Your task to perform on an android device: turn on translation in the chrome app Image 0: 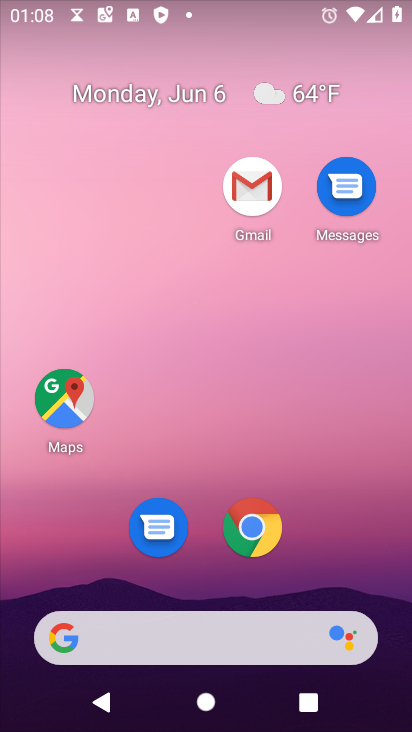
Step 0: click (303, 535)
Your task to perform on an android device: turn on translation in the chrome app Image 1: 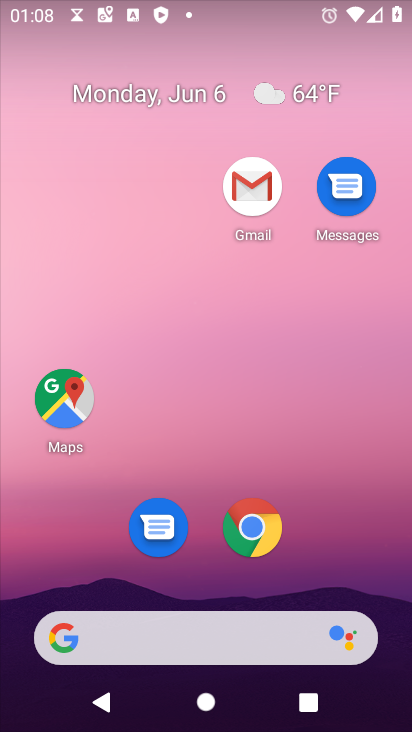
Step 1: click (259, 518)
Your task to perform on an android device: turn on translation in the chrome app Image 2: 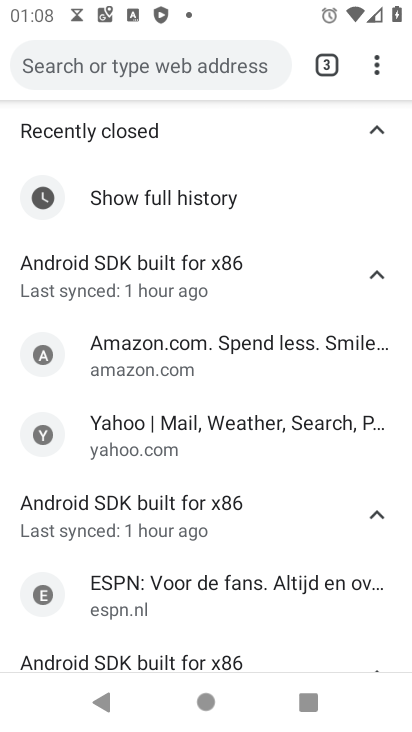
Step 2: click (376, 64)
Your task to perform on an android device: turn on translation in the chrome app Image 3: 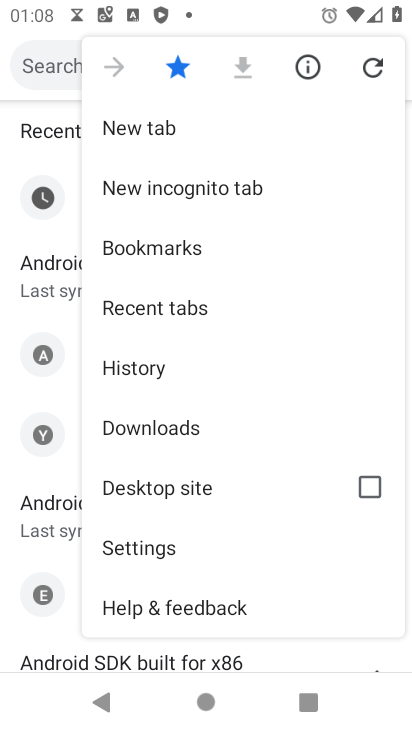
Step 3: drag from (223, 233) to (227, 597)
Your task to perform on an android device: turn on translation in the chrome app Image 4: 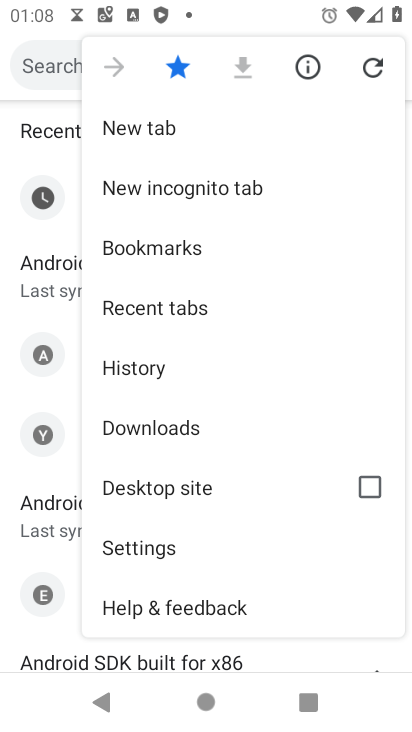
Step 4: drag from (232, 586) to (219, 187)
Your task to perform on an android device: turn on translation in the chrome app Image 5: 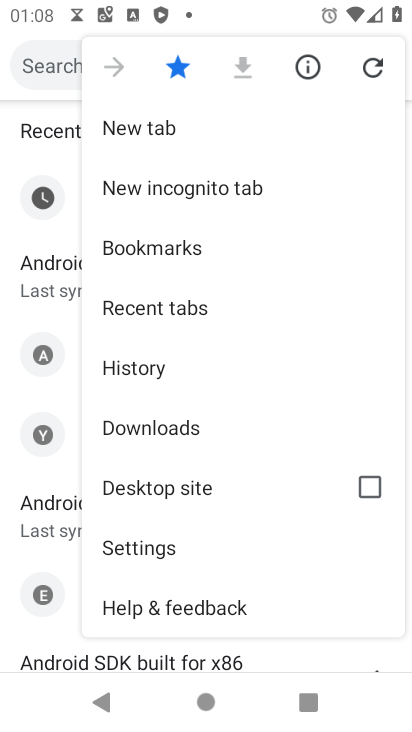
Step 5: drag from (202, 540) to (206, 176)
Your task to perform on an android device: turn on translation in the chrome app Image 6: 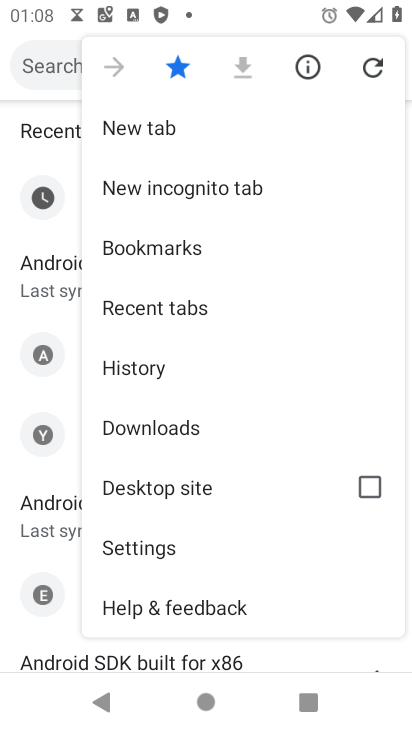
Step 6: drag from (235, 106) to (248, 606)
Your task to perform on an android device: turn on translation in the chrome app Image 7: 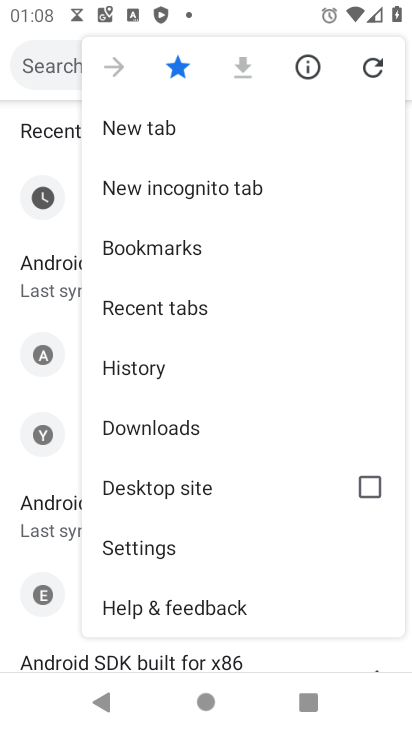
Step 7: drag from (229, 214) to (234, 578)
Your task to perform on an android device: turn on translation in the chrome app Image 8: 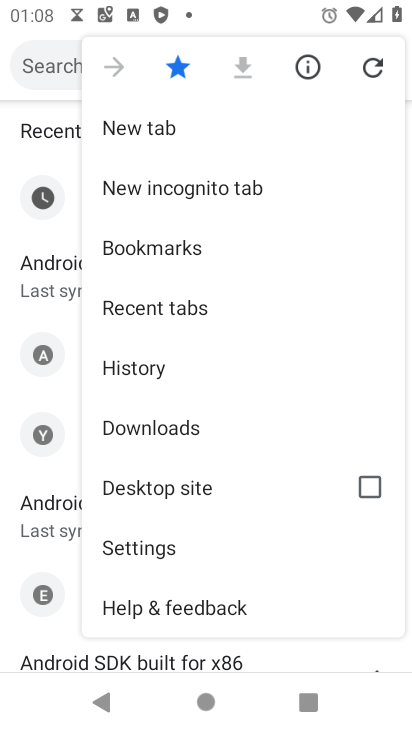
Step 8: drag from (158, 445) to (150, 102)
Your task to perform on an android device: turn on translation in the chrome app Image 9: 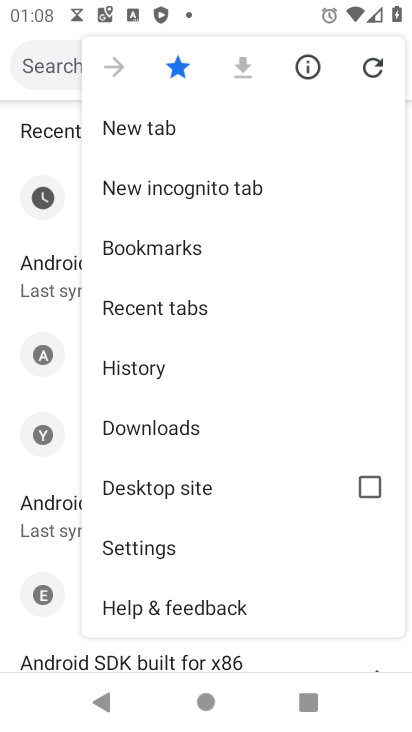
Step 9: click (141, 562)
Your task to perform on an android device: turn on translation in the chrome app Image 10: 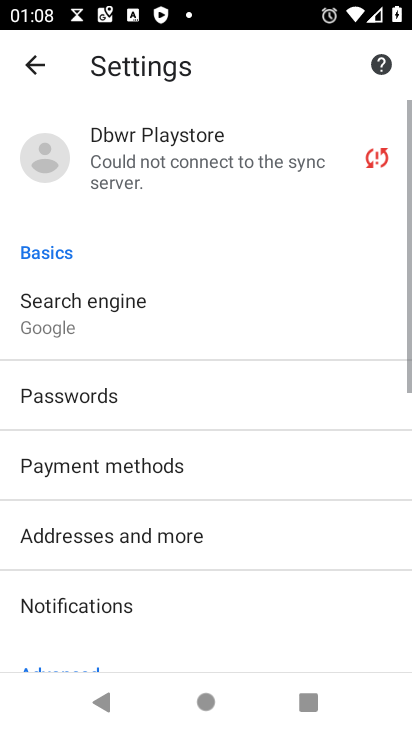
Step 10: drag from (136, 573) to (125, 158)
Your task to perform on an android device: turn on translation in the chrome app Image 11: 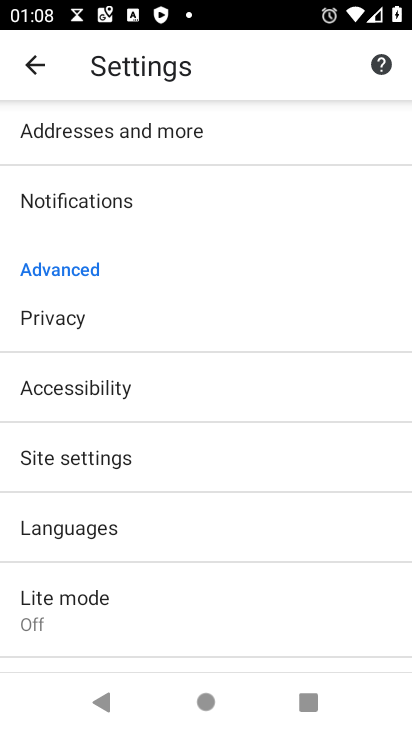
Step 11: click (113, 283)
Your task to perform on an android device: turn on translation in the chrome app Image 12: 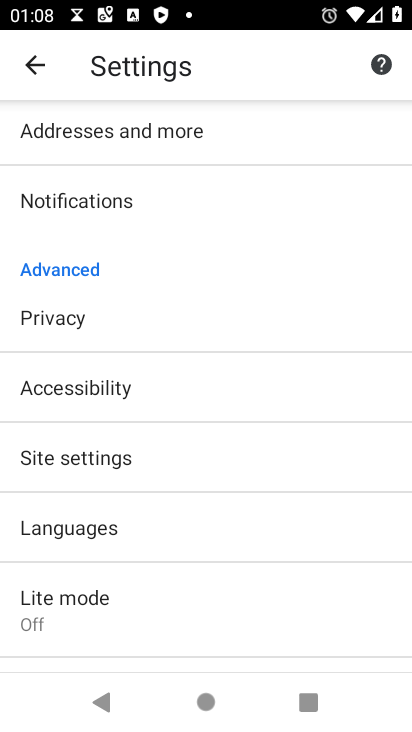
Step 12: drag from (114, 527) to (130, 185)
Your task to perform on an android device: turn on translation in the chrome app Image 13: 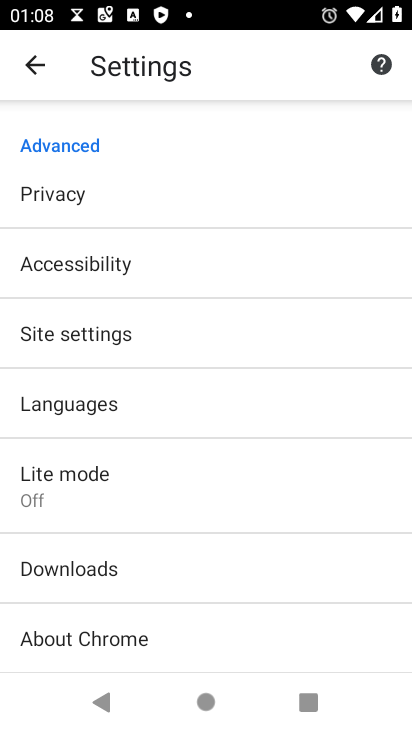
Step 13: click (85, 179)
Your task to perform on an android device: turn on translation in the chrome app Image 14: 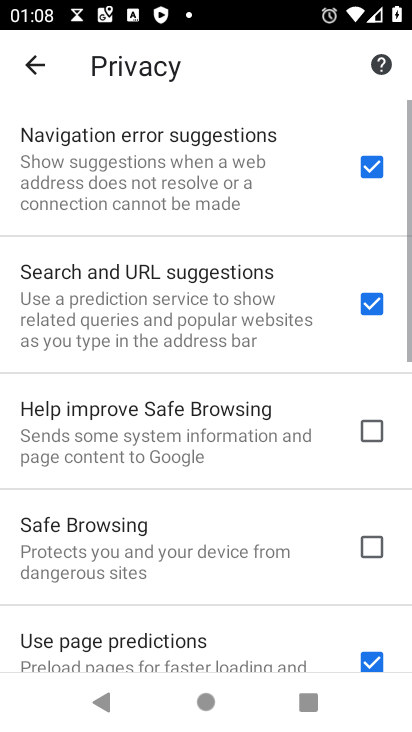
Step 14: drag from (135, 619) to (121, 214)
Your task to perform on an android device: turn on translation in the chrome app Image 15: 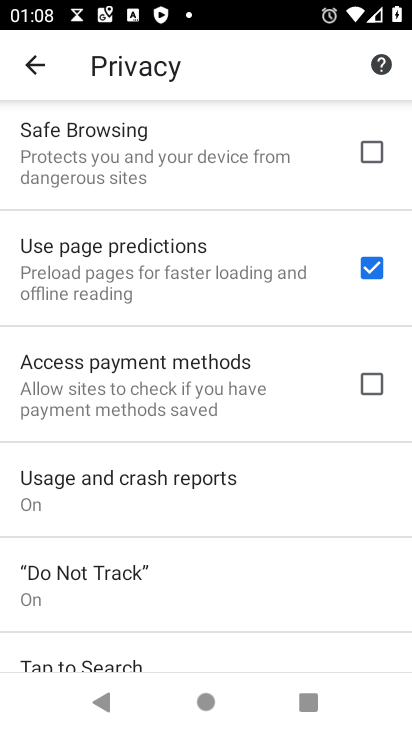
Step 15: drag from (114, 573) to (125, 170)
Your task to perform on an android device: turn on translation in the chrome app Image 16: 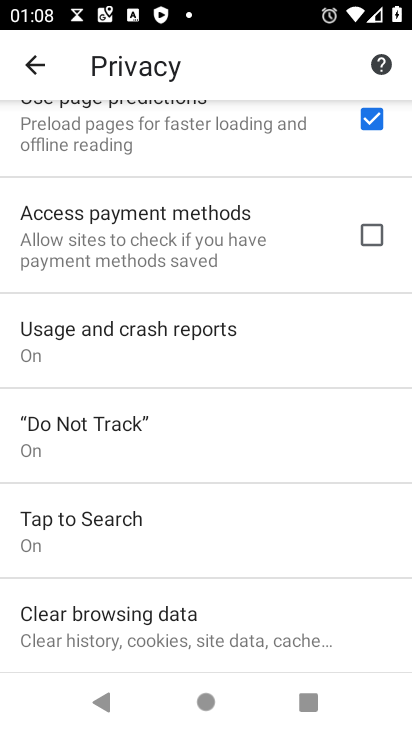
Step 16: press back button
Your task to perform on an android device: turn on translation in the chrome app Image 17: 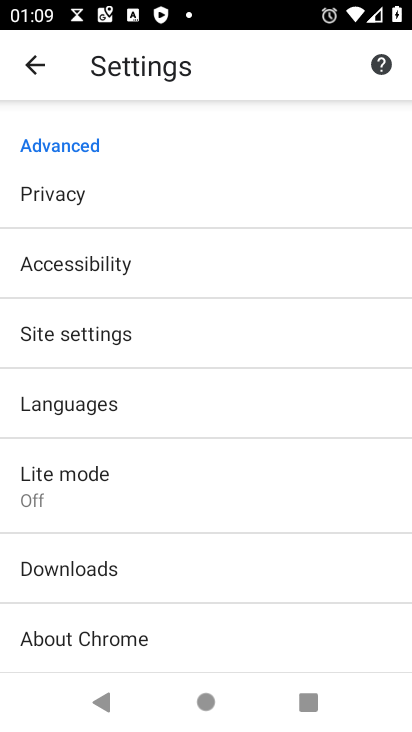
Step 17: click (50, 404)
Your task to perform on an android device: turn on translation in the chrome app Image 18: 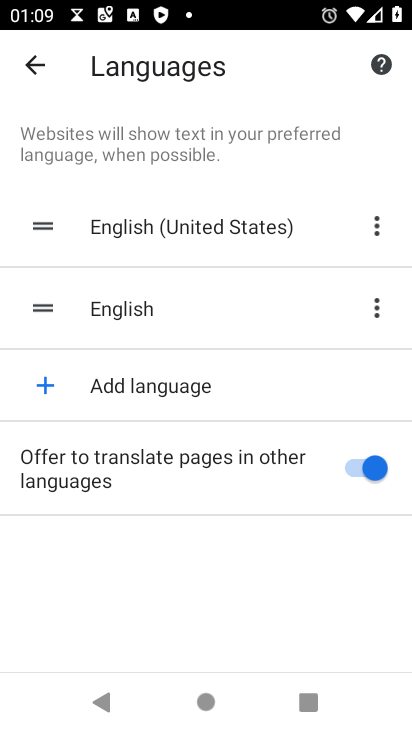
Step 18: task complete